Your task to perform on an android device: Play the last video I watched on Youtube Image 0: 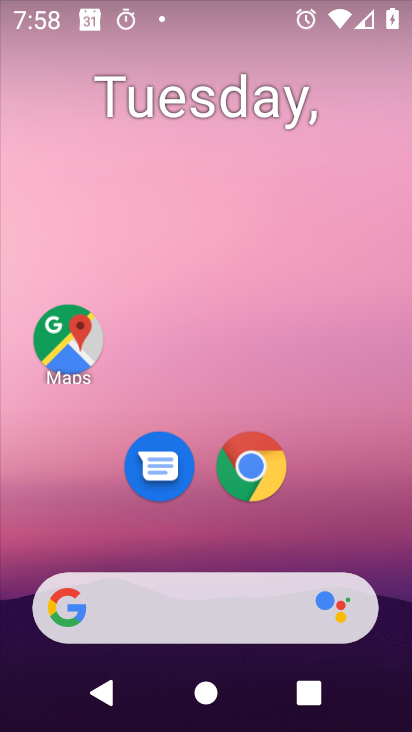
Step 0: press home button
Your task to perform on an android device: Play the last video I watched on Youtube Image 1: 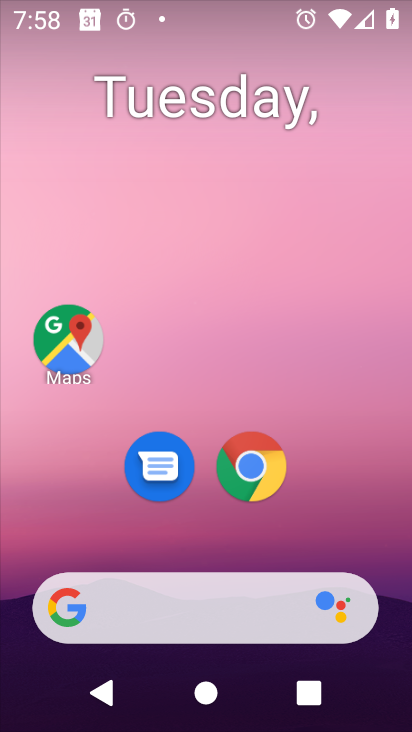
Step 1: drag from (6, 595) to (281, 176)
Your task to perform on an android device: Play the last video I watched on Youtube Image 2: 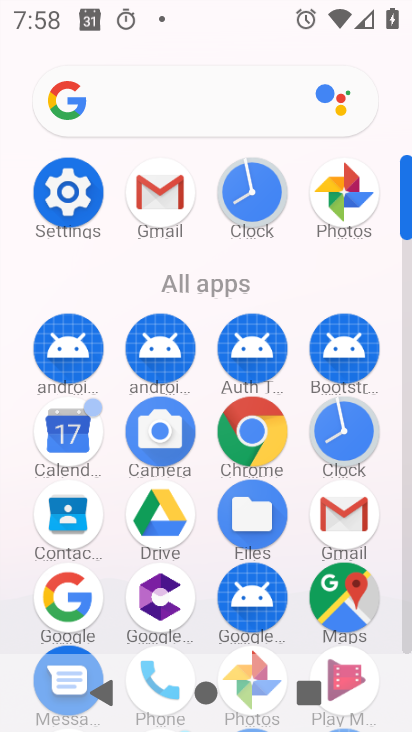
Step 2: drag from (20, 532) to (305, 197)
Your task to perform on an android device: Play the last video I watched on Youtube Image 3: 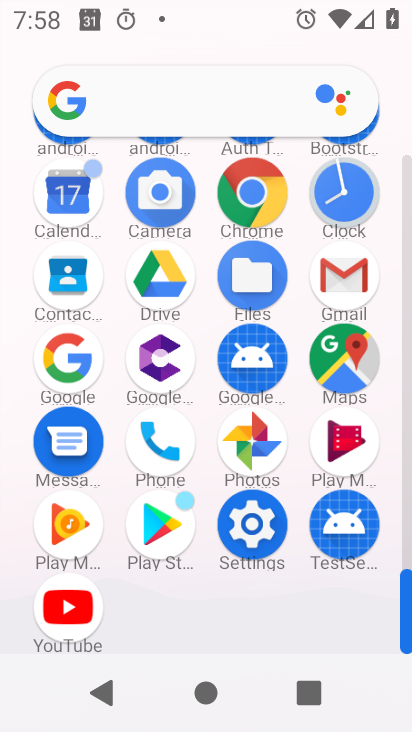
Step 3: click (85, 613)
Your task to perform on an android device: Play the last video I watched on Youtube Image 4: 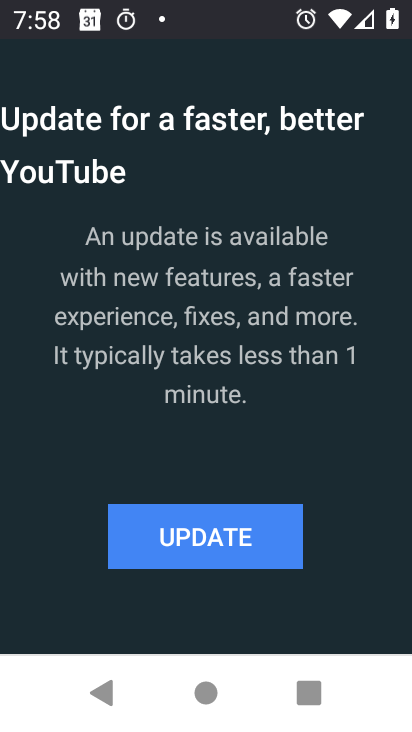
Step 4: task complete